Your task to perform on an android device: Open the phone app and click the voicemail tab. Image 0: 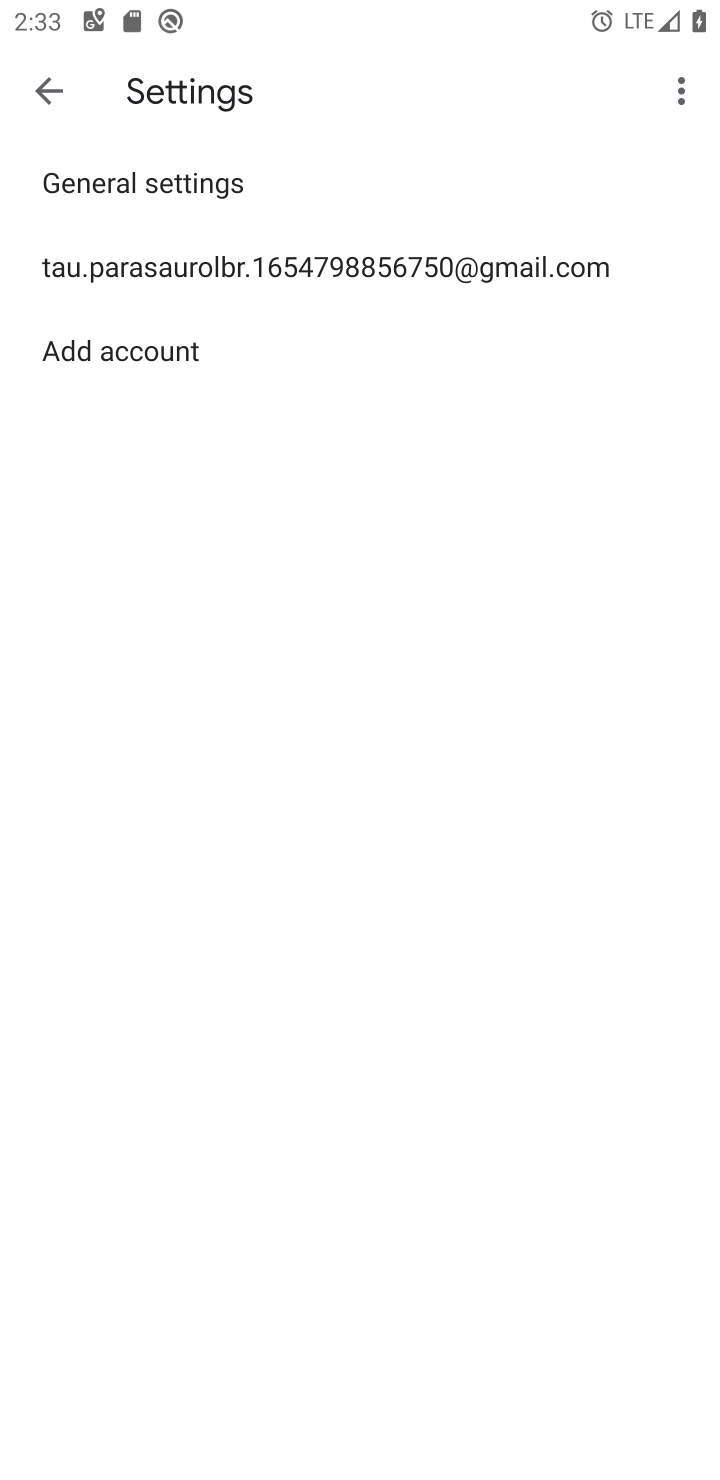
Step 0: press home button
Your task to perform on an android device: Open the phone app and click the voicemail tab. Image 1: 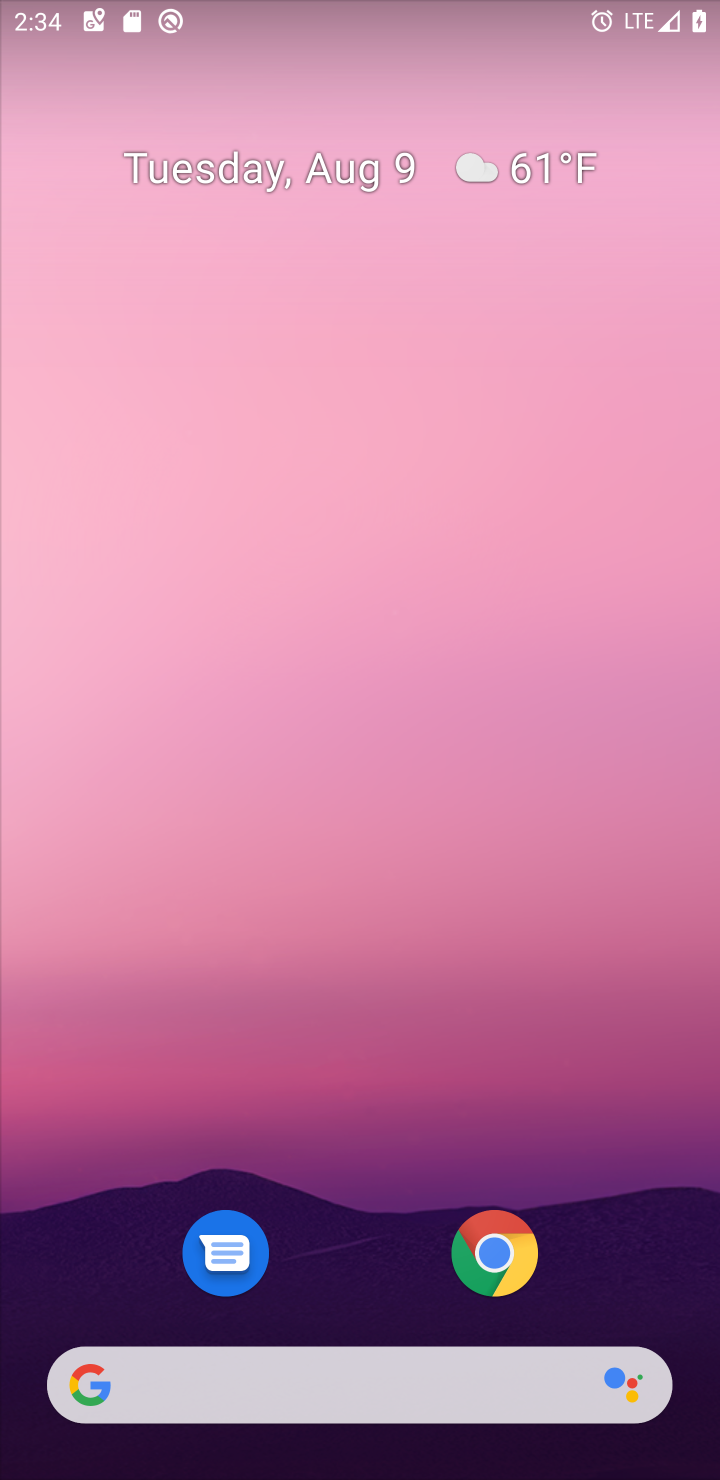
Step 1: drag from (643, 1121) to (311, 19)
Your task to perform on an android device: Open the phone app and click the voicemail tab. Image 2: 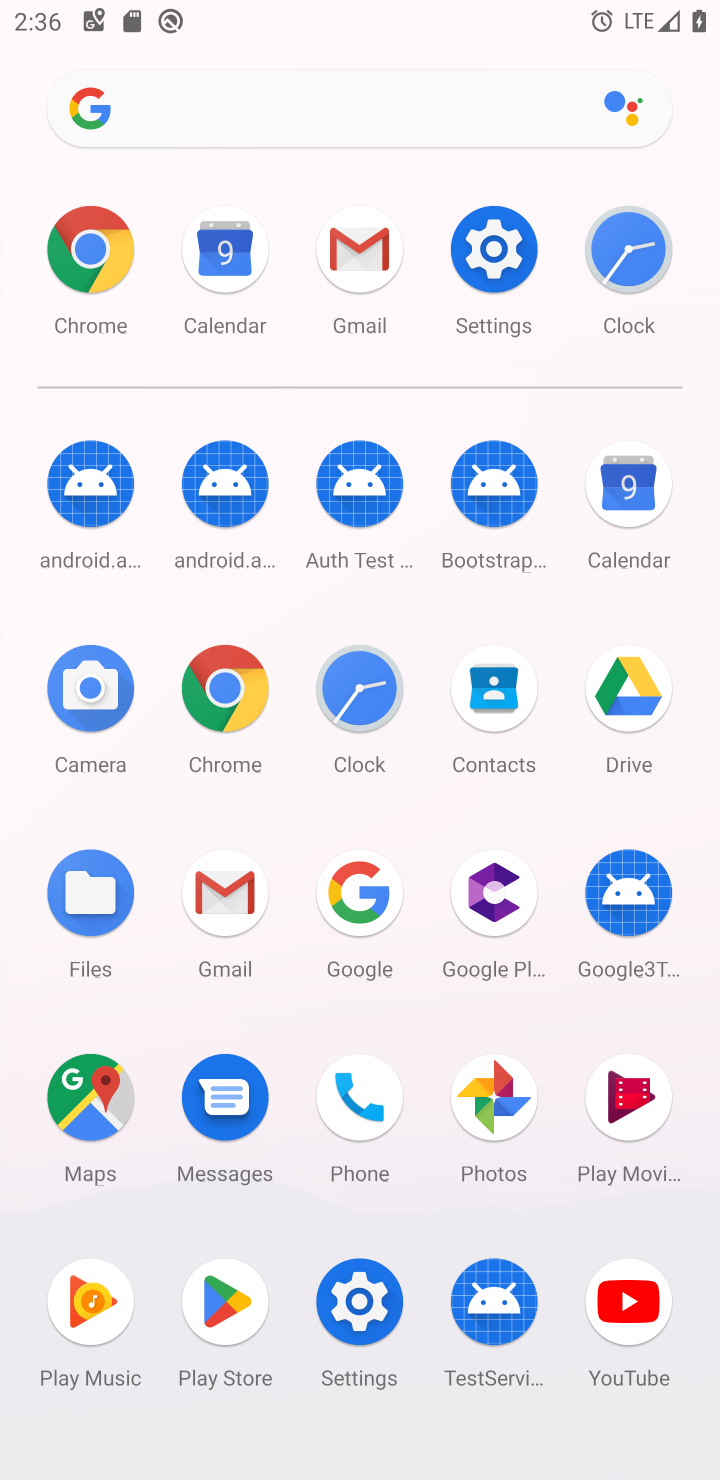
Step 2: click (360, 1114)
Your task to perform on an android device: Open the phone app and click the voicemail tab. Image 3: 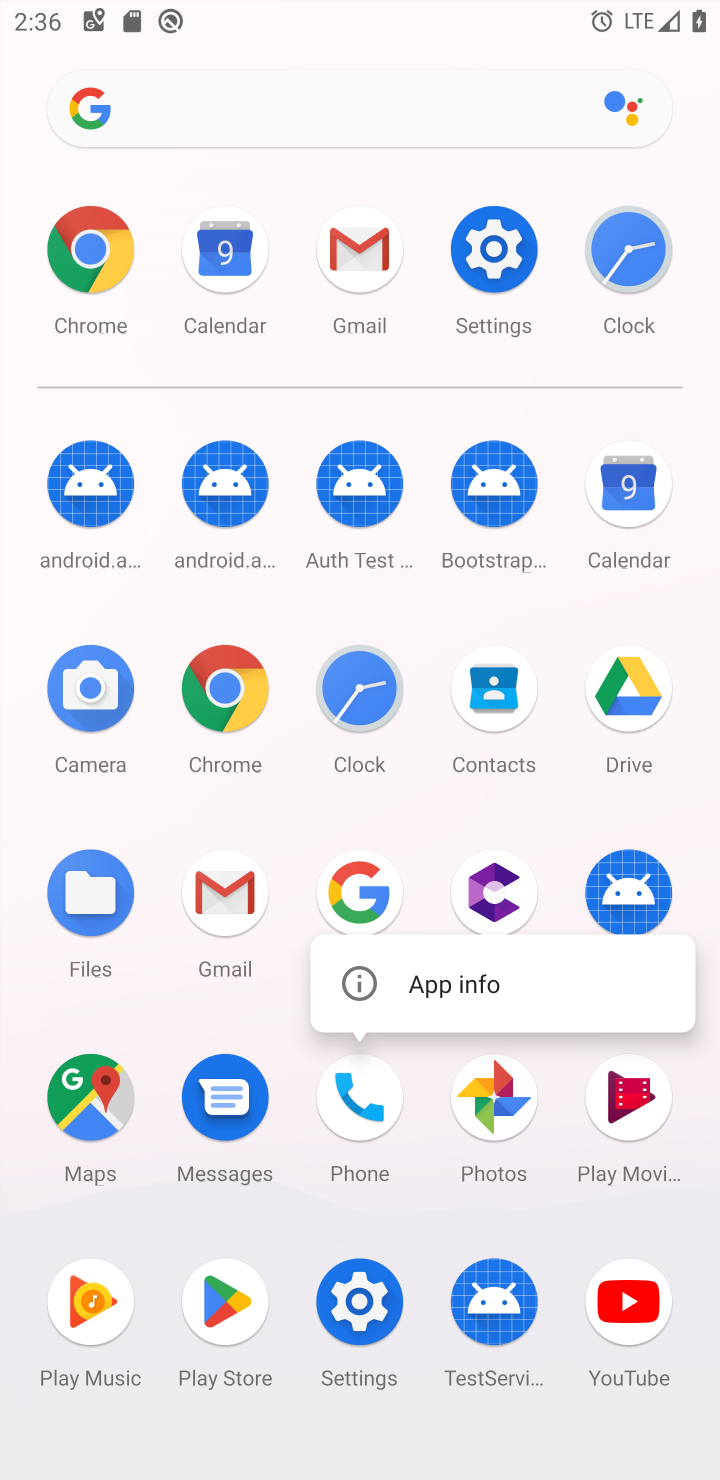
Step 3: click (360, 1114)
Your task to perform on an android device: Open the phone app and click the voicemail tab. Image 4: 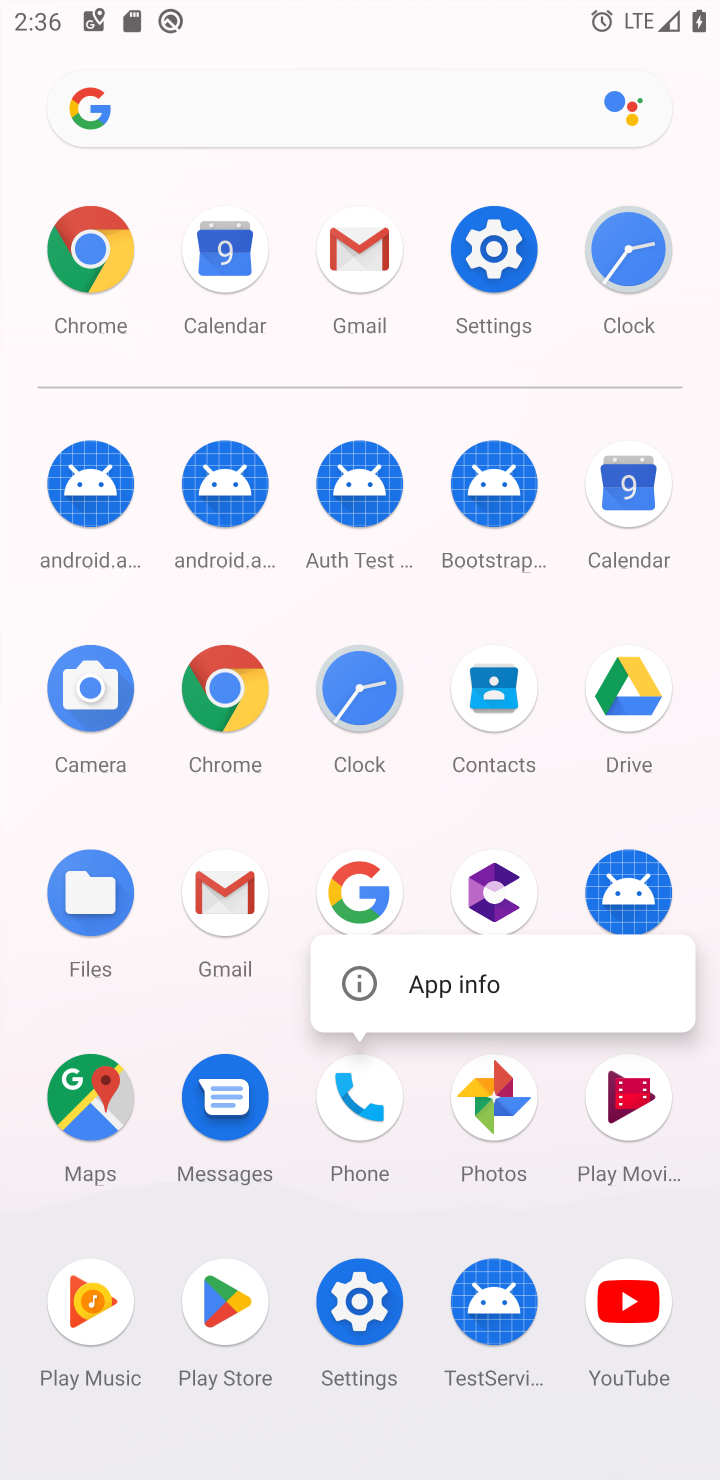
Step 4: click (360, 1131)
Your task to perform on an android device: Open the phone app and click the voicemail tab. Image 5: 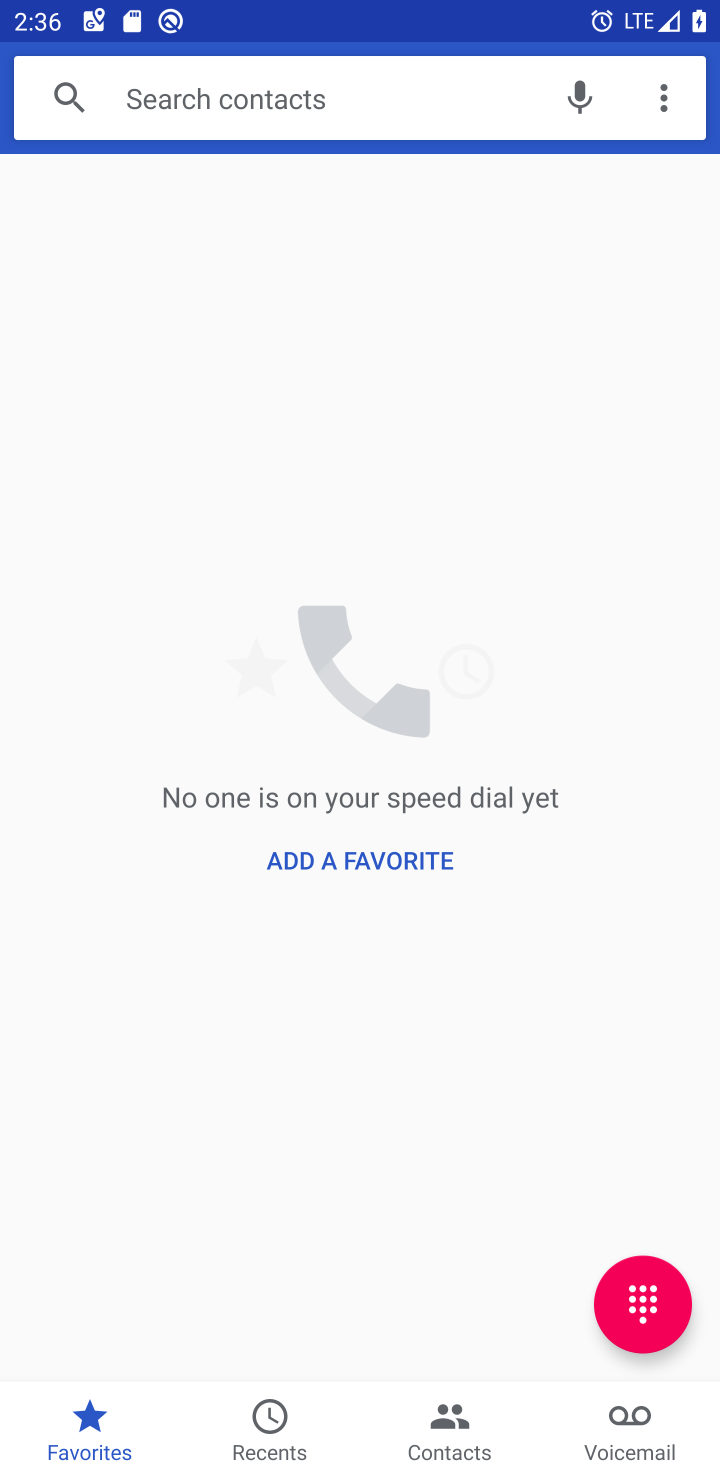
Step 5: click (615, 1404)
Your task to perform on an android device: Open the phone app and click the voicemail tab. Image 6: 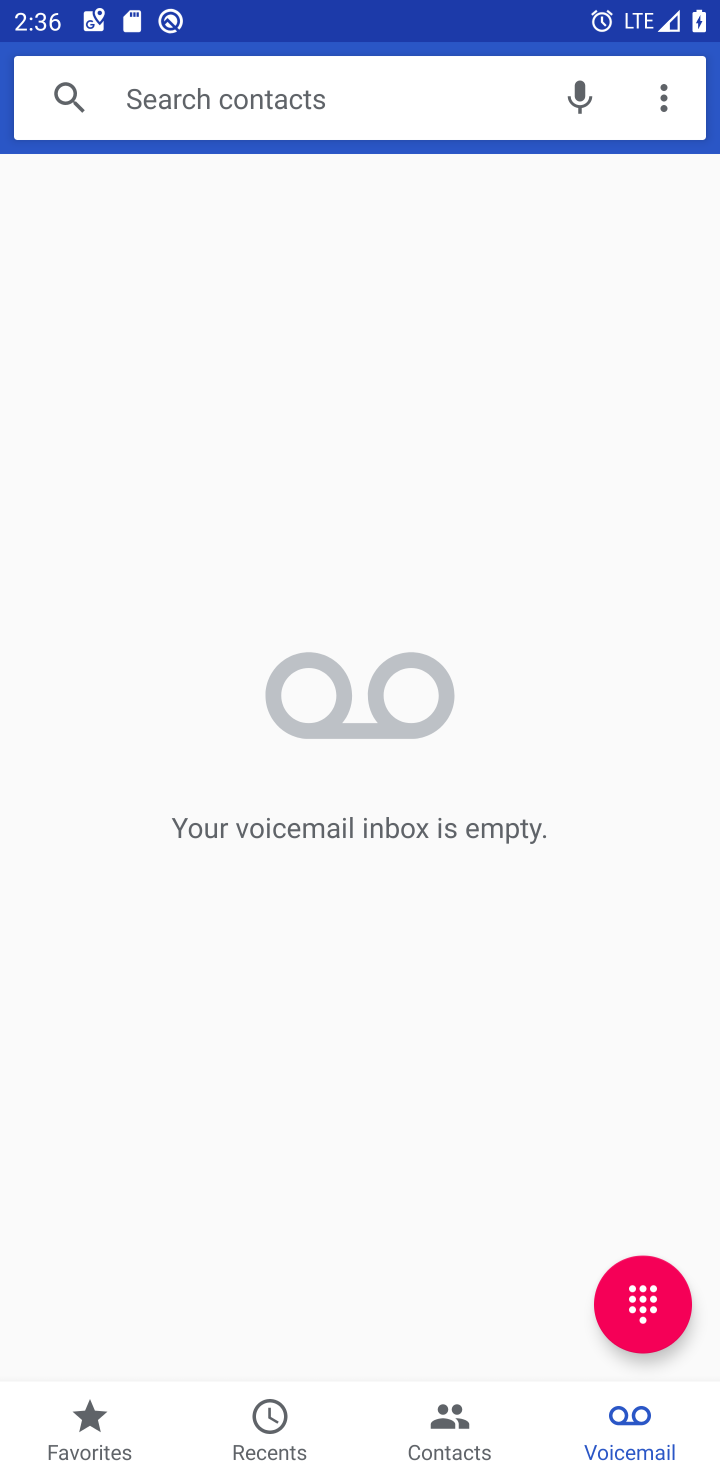
Step 6: task complete